Your task to perform on an android device: What is the recent news? Image 0: 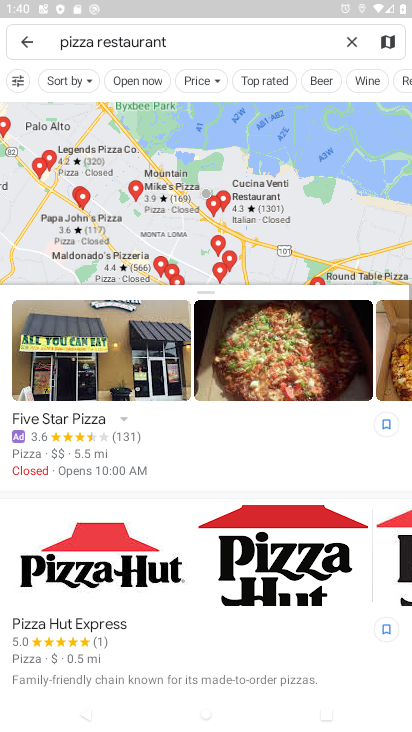
Step 0: click (123, 603)
Your task to perform on an android device: What is the recent news? Image 1: 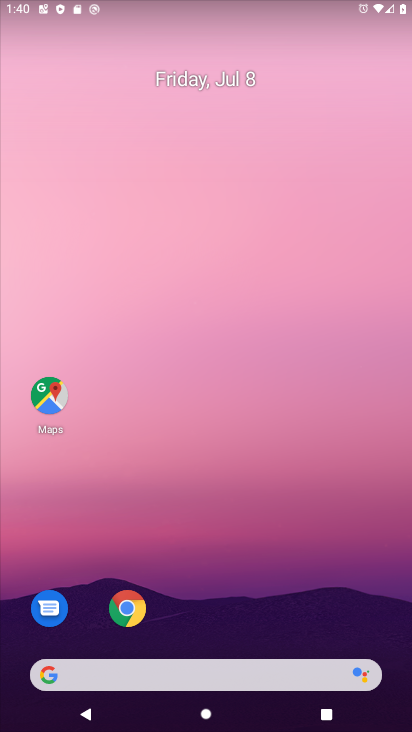
Step 1: click (133, 668)
Your task to perform on an android device: What is the recent news? Image 2: 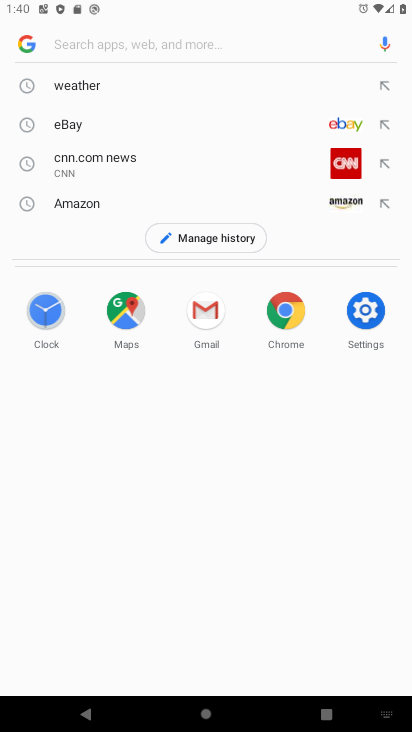
Step 2: click (30, 42)
Your task to perform on an android device: What is the recent news? Image 3: 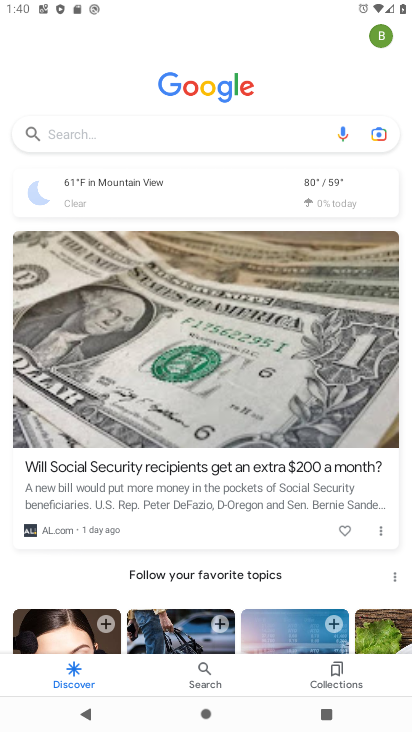
Step 3: task complete